Your task to perform on an android device: see sites visited before in the chrome app Image 0: 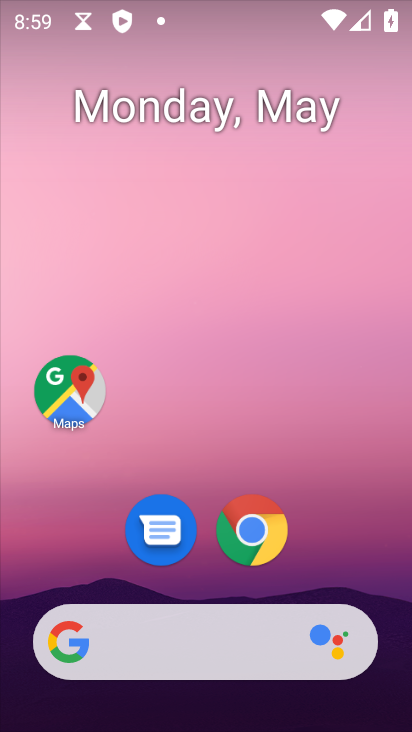
Step 0: drag from (289, 507) to (226, 30)
Your task to perform on an android device: see sites visited before in the chrome app Image 1: 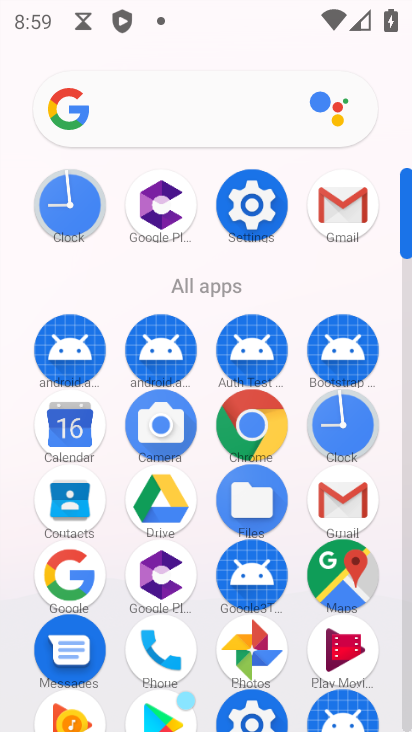
Step 1: drag from (7, 536) to (12, 237)
Your task to perform on an android device: see sites visited before in the chrome app Image 2: 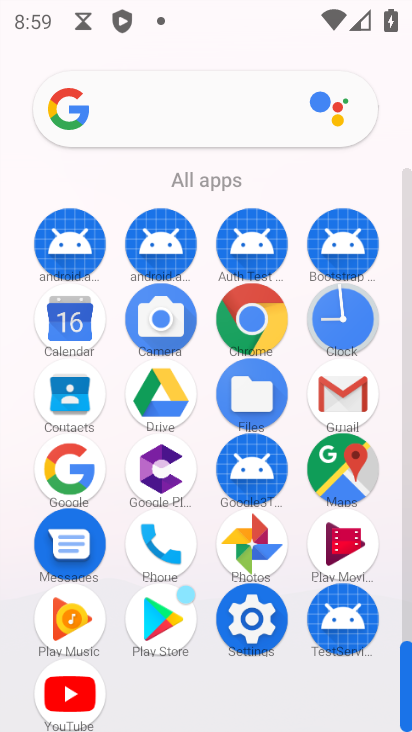
Step 2: click (252, 313)
Your task to perform on an android device: see sites visited before in the chrome app Image 3: 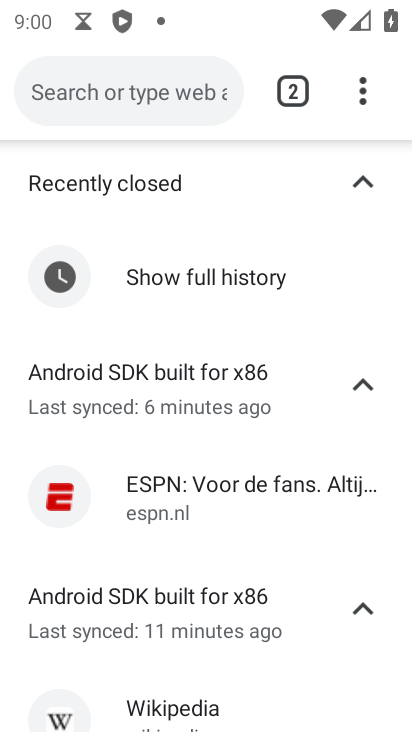
Step 3: task complete